Your task to perform on an android device: Open battery settings Image 0: 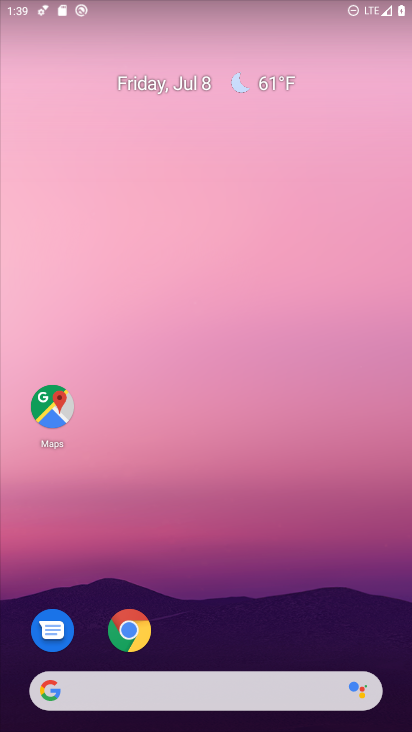
Step 0: drag from (389, 642) to (286, 5)
Your task to perform on an android device: Open battery settings Image 1: 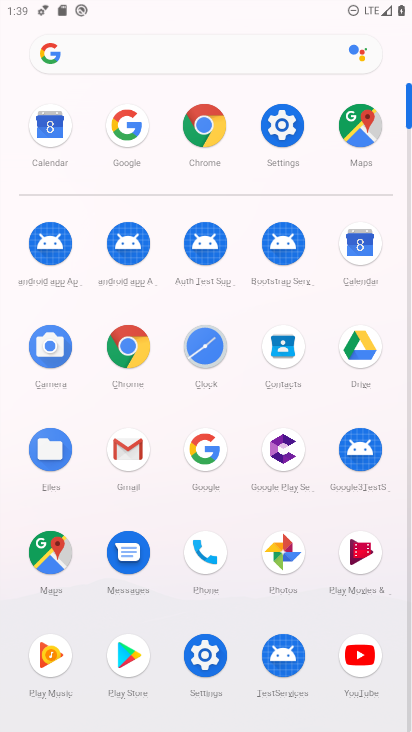
Step 1: click (210, 647)
Your task to perform on an android device: Open battery settings Image 2: 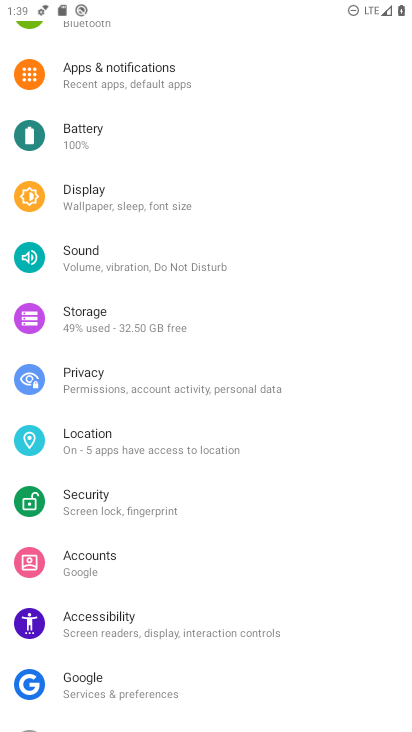
Step 2: click (113, 134)
Your task to perform on an android device: Open battery settings Image 3: 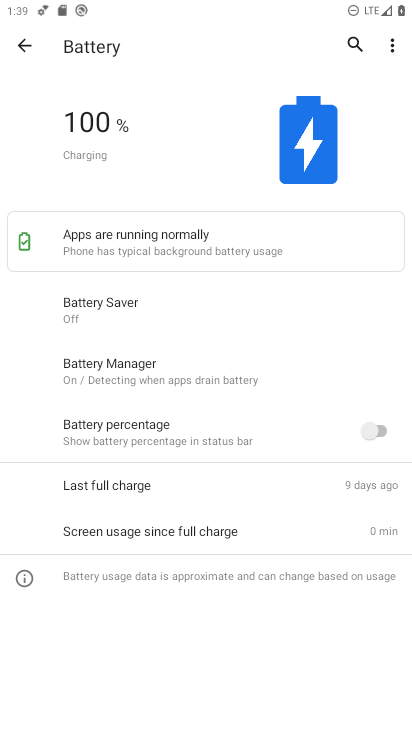
Step 3: task complete